Your task to perform on an android device: Go to battery settings Image 0: 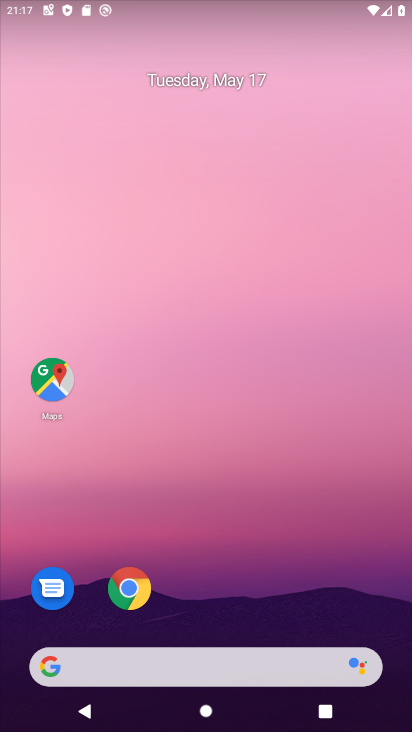
Step 0: drag from (270, 568) to (254, 246)
Your task to perform on an android device: Go to battery settings Image 1: 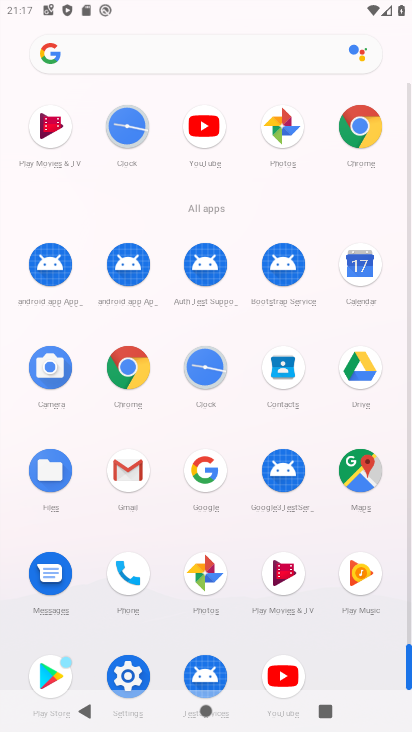
Step 1: click (140, 662)
Your task to perform on an android device: Go to battery settings Image 2: 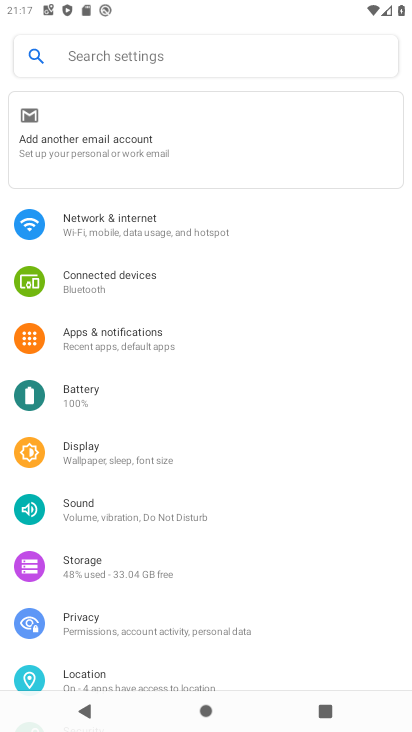
Step 2: click (99, 381)
Your task to perform on an android device: Go to battery settings Image 3: 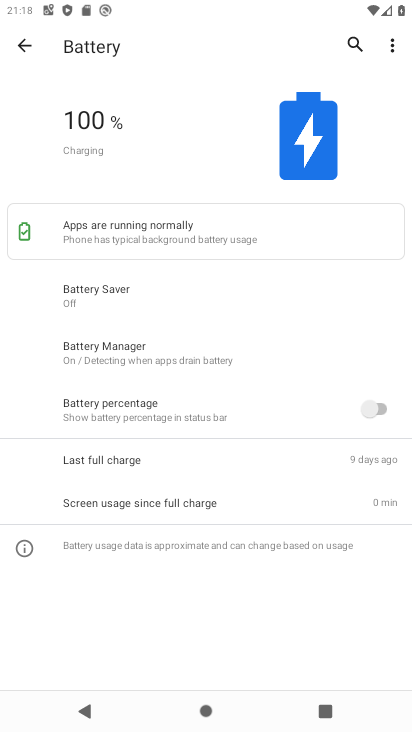
Step 3: task complete